Your task to perform on an android device: Show me popular games on the Play Store Image 0: 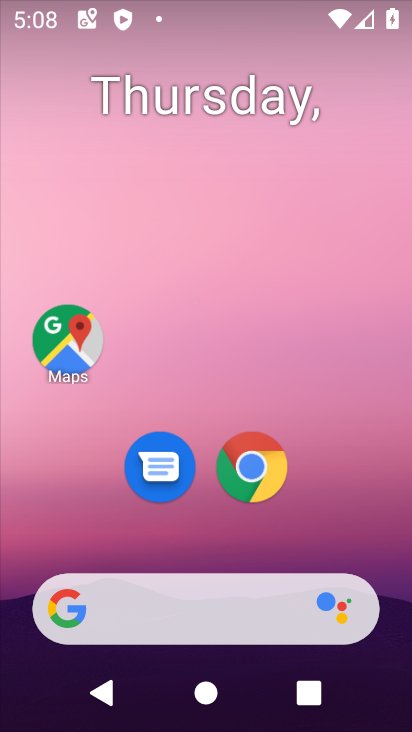
Step 0: drag from (386, 554) to (340, 48)
Your task to perform on an android device: Show me popular games on the Play Store Image 1: 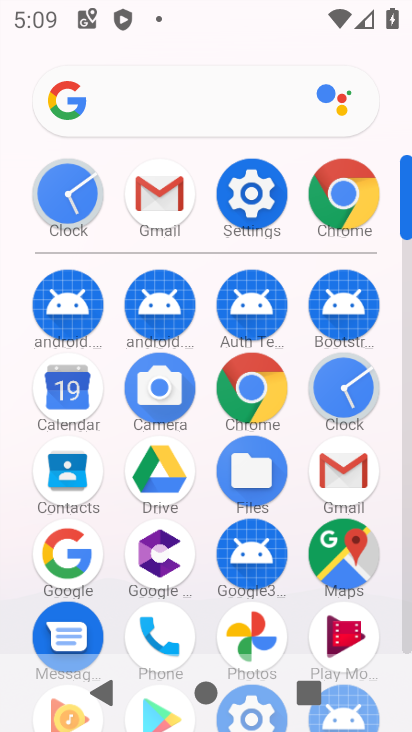
Step 1: click (409, 642)
Your task to perform on an android device: Show me popular games on the Play Store Image 2: 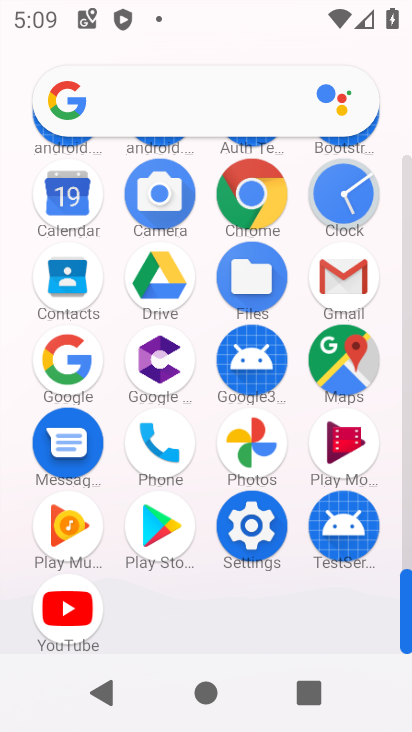
Step 2: click (153, 543)
Your task to perform on an android device: Show me popular games on the Play Store Image 3: 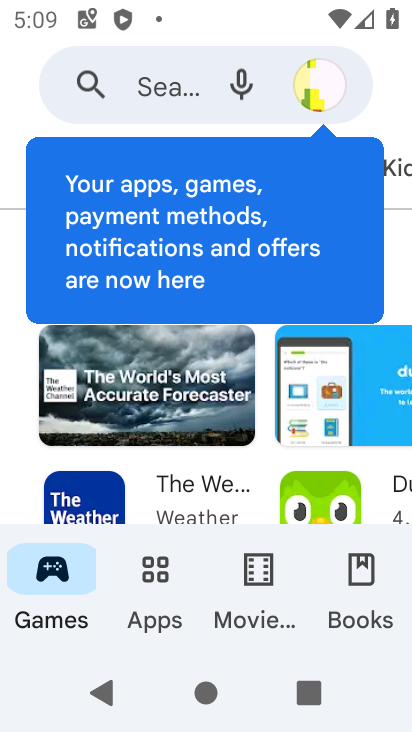
Step 3: click (247, 497)
Your task to perform on an android device: Show me popular games on the Play Store Image 4: 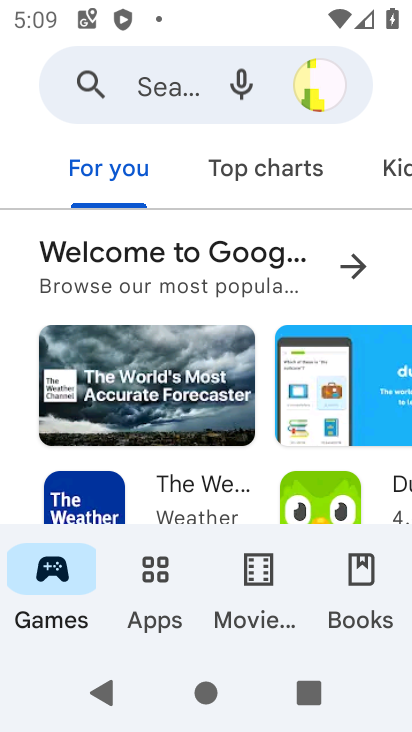
Step 4: click (227, 282)
Your task to perform on an android device: Show me popular games on the Play Store Image 5: 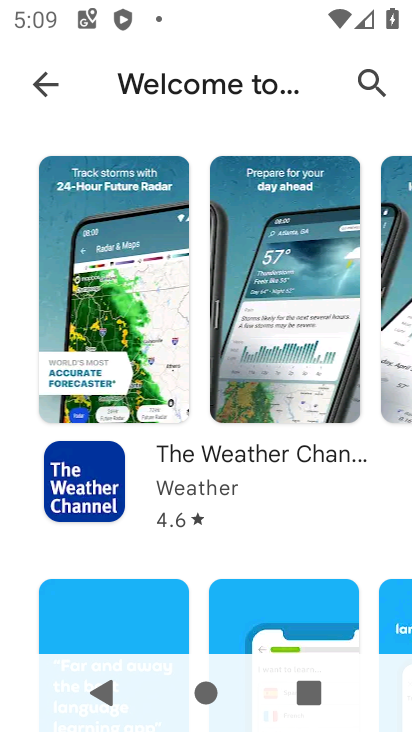
Step 5: task complete